Your task to perform on an android device: Open Chrome and go to the settings page Image 0: 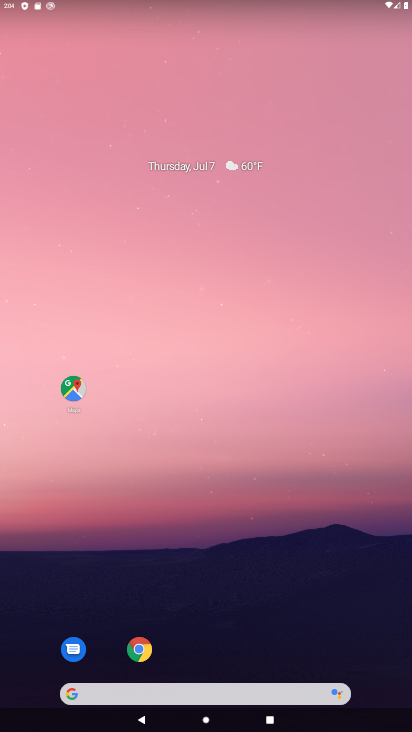
Step 0: click (138, 649)
Your task to perform on an android device: Open Chrome and go to the settings page Image 1: 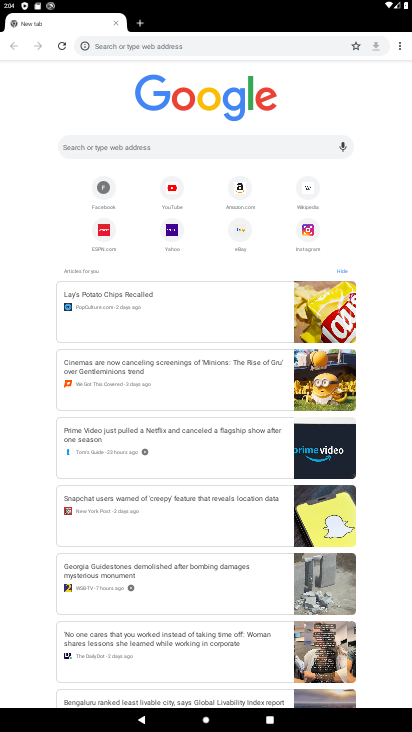
Step 1: task complete